Your task to perform on an android device: turn on showing notifications on the lock screen Image 0: 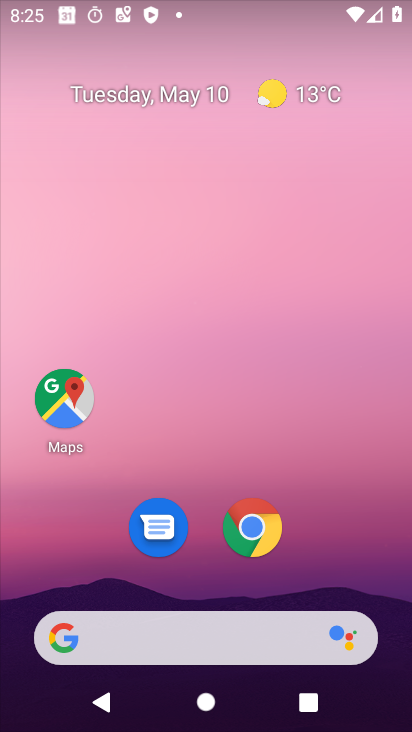
Step 0: drag from (4, 712) to (272, 70)
Your task to perform on an android device: turn on showing notifications on the lock screen Image 1: 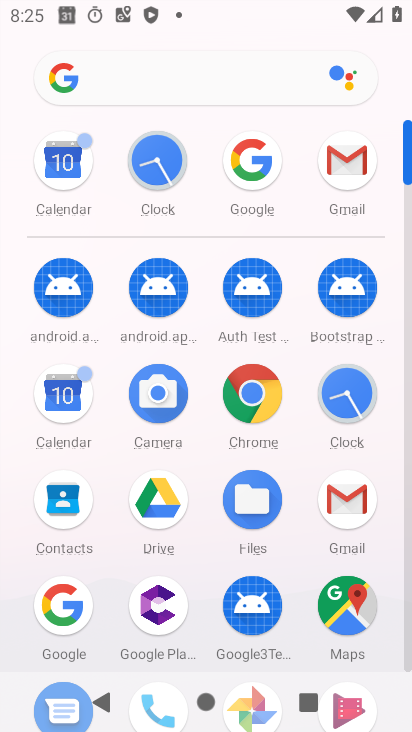
Step 1: drag from (116, 622) to (243, 172)
Your task to perform on an android device: turn on showing notifications on the lock screen Image 2: 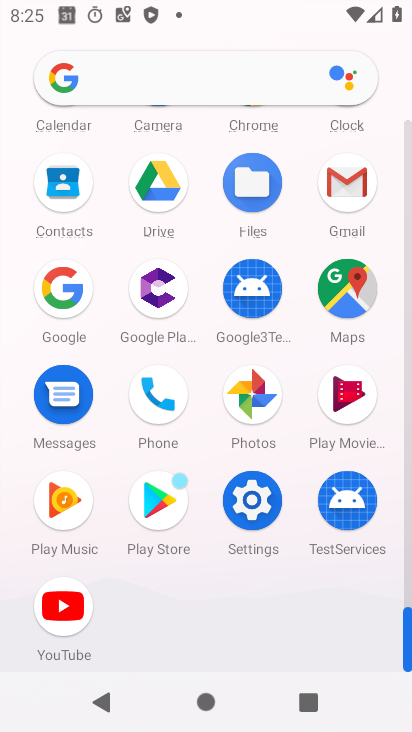
Step 2: click (253, 496)
Your task to perform on an android device: turn on showing notifications on the lock screen Image 3: 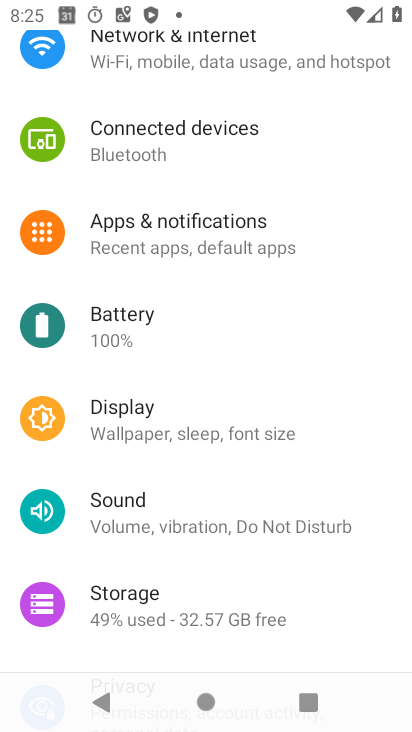
Step 3: click (149, 241)
Your task to perform on an android device: turn on showing notifications on the lock screen Image 4: 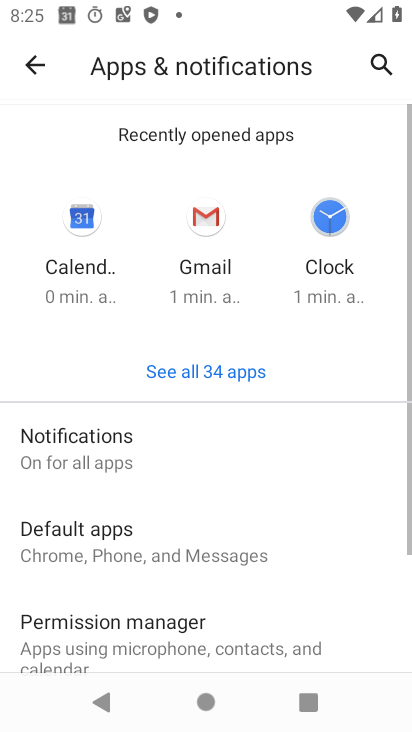
Step 4: click (67, 453)
Your task to perform on an android device: turn on showing notifications on the lock screen Image 5: 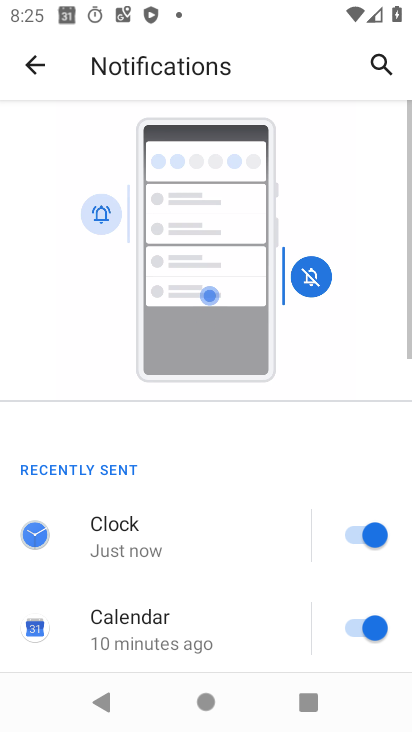
Step 5: drag from (91, 614) to (194, 96)
Your task to perform on an android device: turn on showing notifications on the lock screen Image 6: 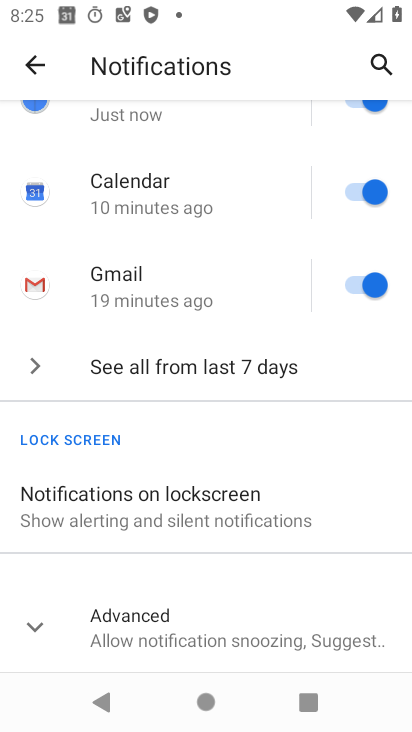
Step 6: click (171, 501)
Your task to perform on an android device: turn on showing notifications on the lock screen Image 7: 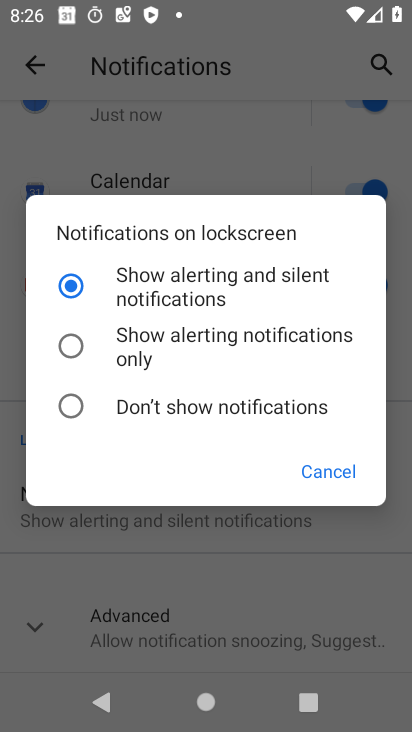
Step 7: task complete